Your task to perform on an android device: delete browsing data in the chrome app Image 0: 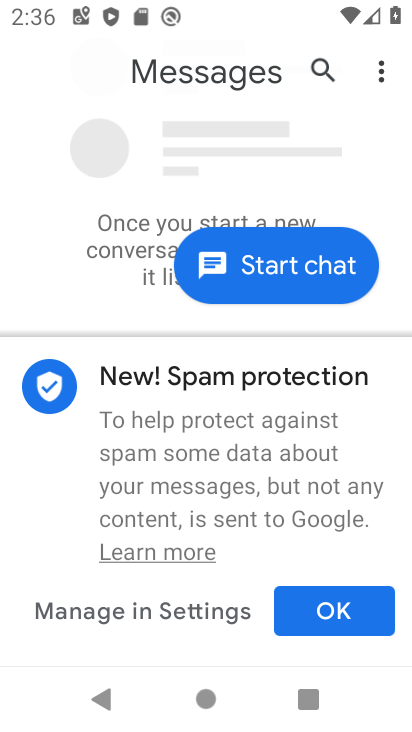
Step 0: press home button
Your task to perform on an android device: delete browsing data in the chrome app Image 1: 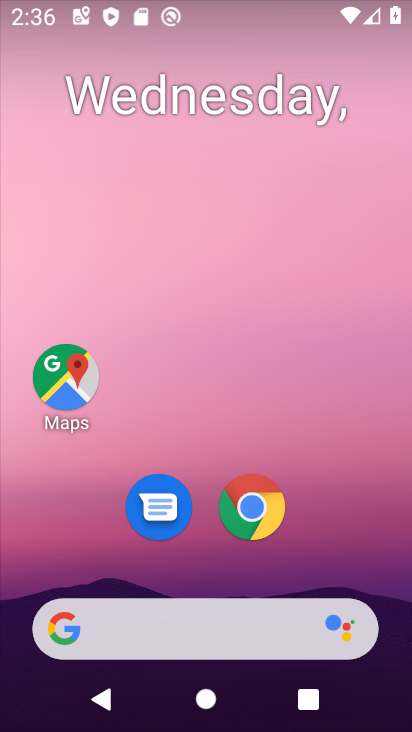
Step 1: click (255, 507)
Your task to perform on an android device: delete browsing data in the chrome app Image 2: 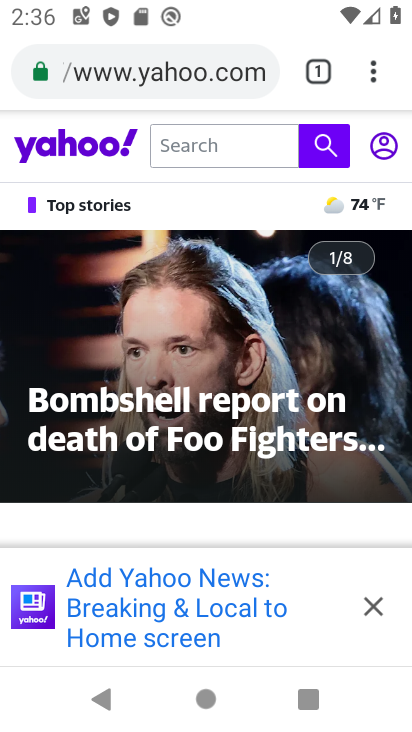
Step 2: click (367, 71)
Your task to perform on an android device: delete browsing data in the chrome app Image 3: 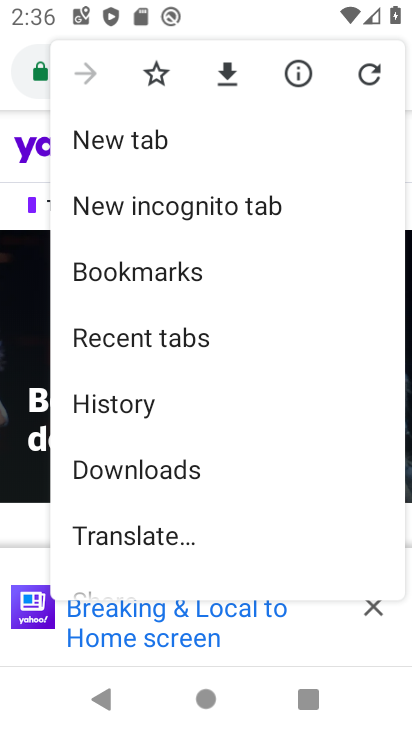
Step 3: drag from (264, 472) to (377, 171)
Your task to perform on an android device: delete browsing data in the chrome app Image 4: 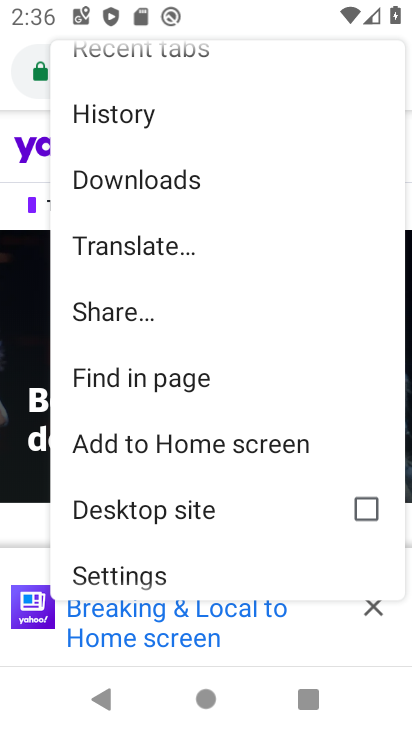
Step 4: click (131, 563)
Your task to perform on an android device: delete browsing data in the chrome app Image 5: 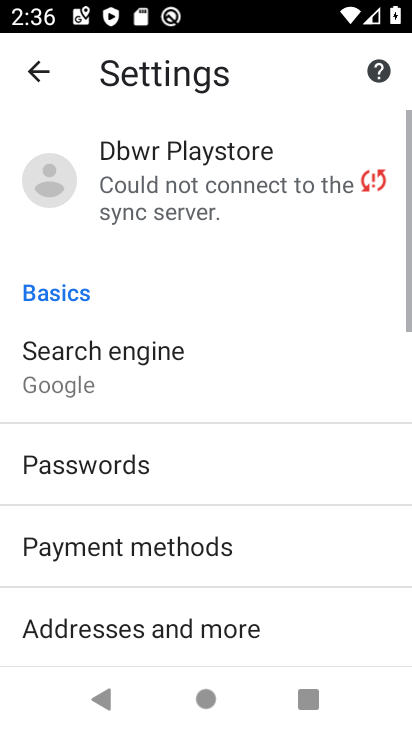
Step 5: drag from (211, 521) to (329, 149)
Your task to perform on an android device: delete browsing data in the chrome app Image 6: 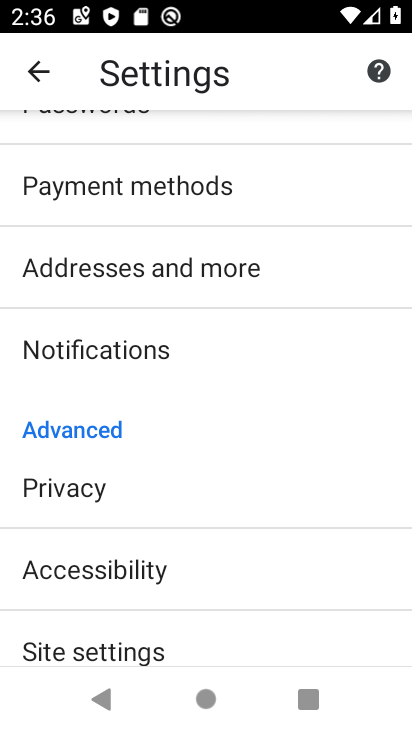
Step 6: click (168, 640)
Your task to perform on an android device: delete browsing data in the chrome app Image 7: 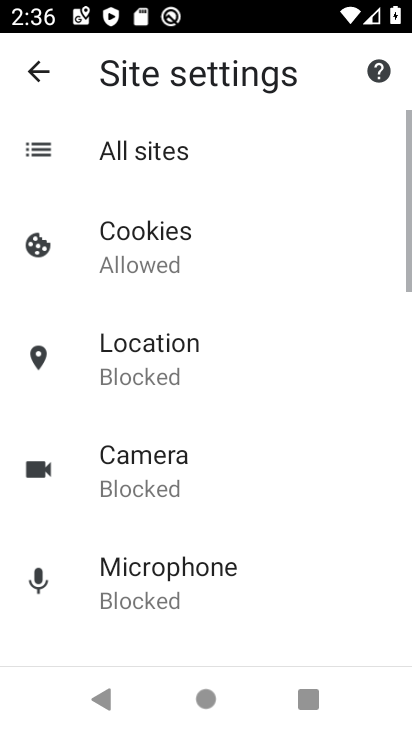
Step 7: drag from (205, 546) to (344, 86)
Your task to perform on an android device: delete browsing data in the chrome app Image 8: 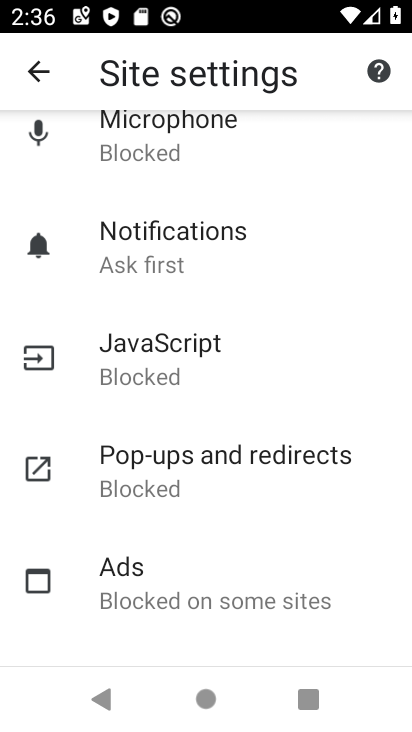
Step 8: drag from (205, 505) to (300, 110)
Your task to perform on an android device: delete browsing data in the chrome app Image 9: 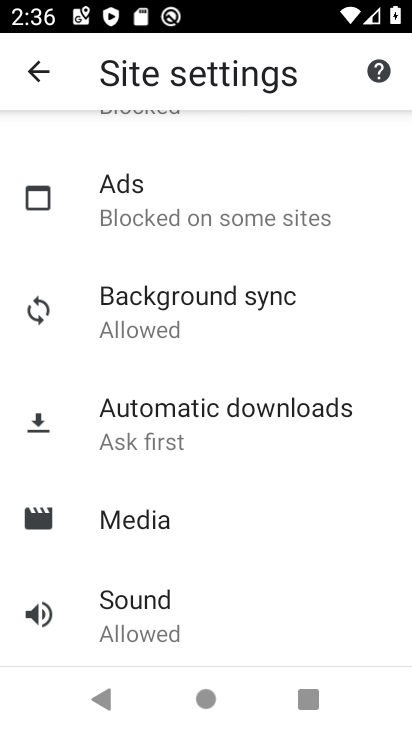
Step 9: drag from (231, 515) to (338, 98)
Your task to perform on an android device: delete browsing data in the chrome app Image 10: 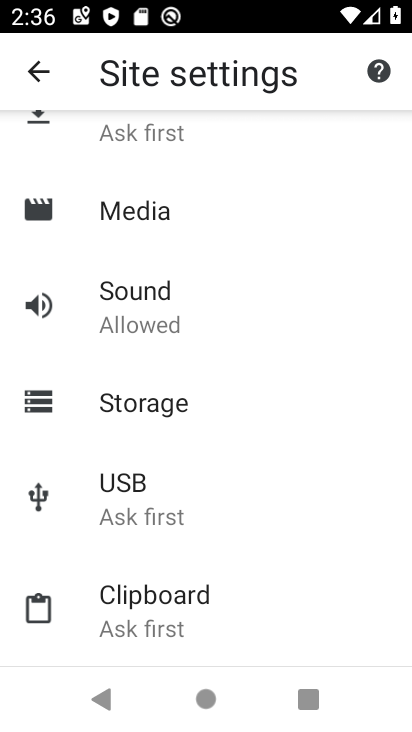
Step 10: drag from (260, 508) to (343, 116)
Your task to perform on an android device: delete browsing data in the chrome app Image 11: 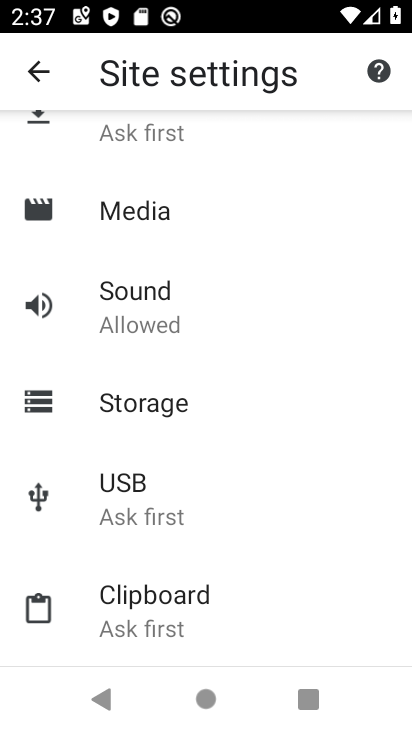
Step 11: press back button
Your task to perform on an android device: delete browsing data in the chrome app Image 12: 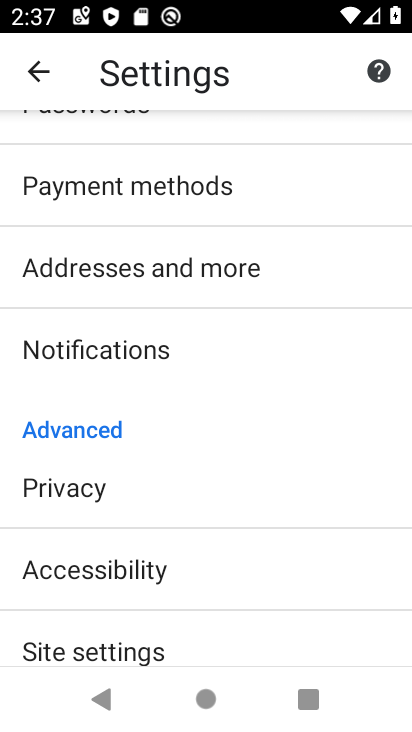
Step 12: drag from (190, 523) to (196, 235)
Your task to perform on an android device: delete browsing data in the chrome app Image 13: 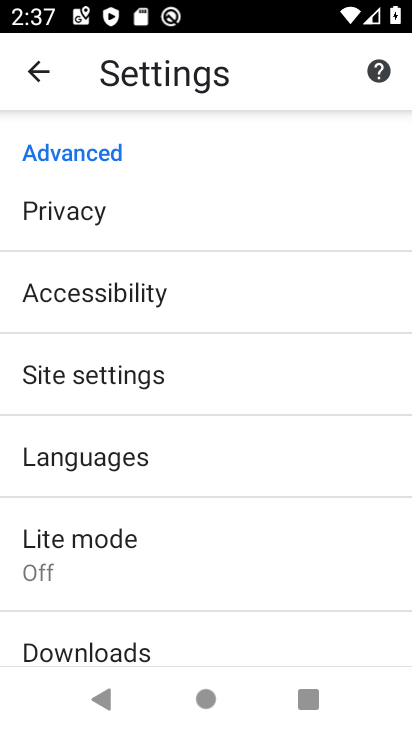
Step 13: drag from (151, 565) to (208, 289)
Your task to perform on an android device: delete browsing data in the chrome app Image 14: 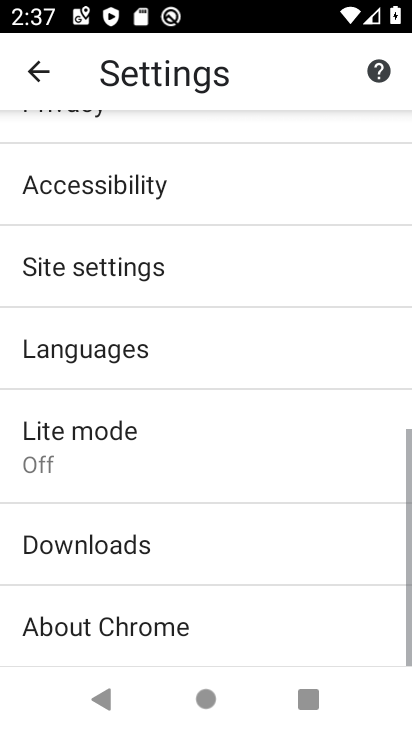
Step 14: drag from (212, 570) to (163, 407)
Your task to perform on an android device: delete browsing data in the chrome app Image 15: 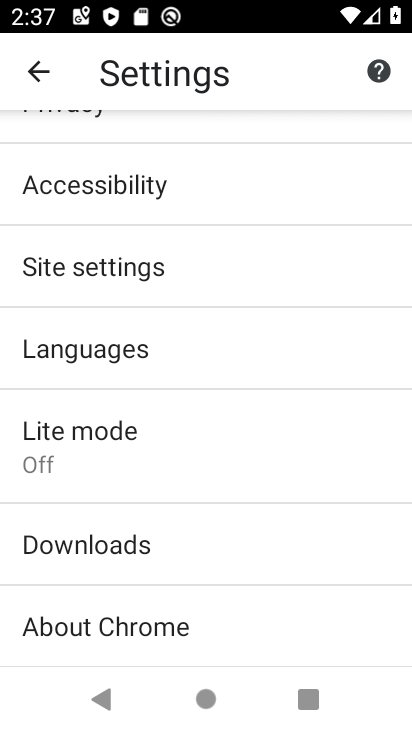
Step 15: click (198, 170)
Your task to perform on an android device: delete browsing data in the chrome app Image 16: 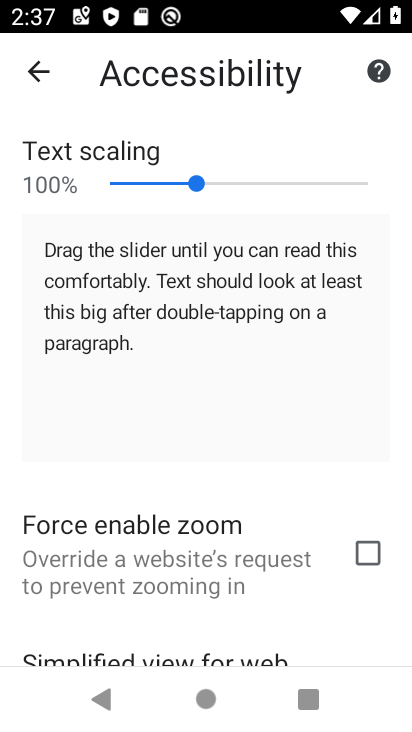
Step 16: drag from (289, 539) to (271, 281)
Your task to perform on an android device: delete browsing data in the chrome app Image 17: 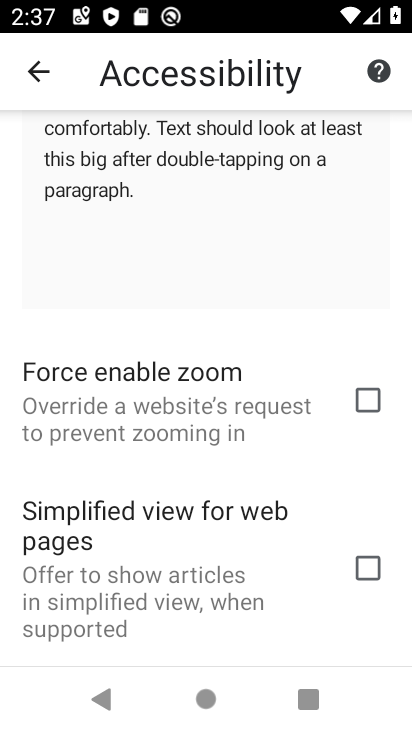
Step 17: press back button
Your task to perform on an android device: delete browsing data in the chrome app Image 18: 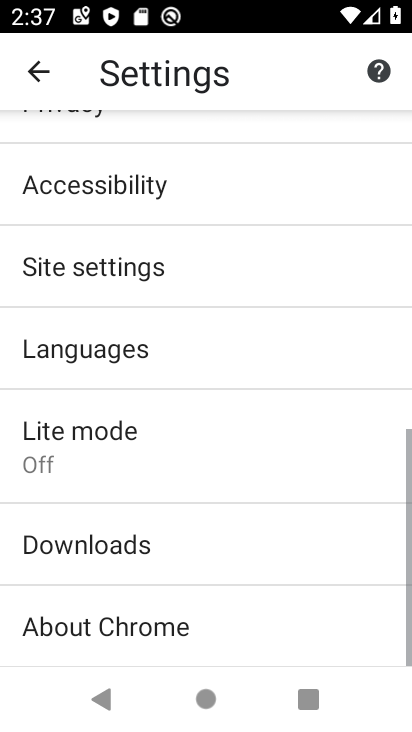
Step 18: press back button
Your task to perform on an android device: delete browsing data in the chrome app Image 19: 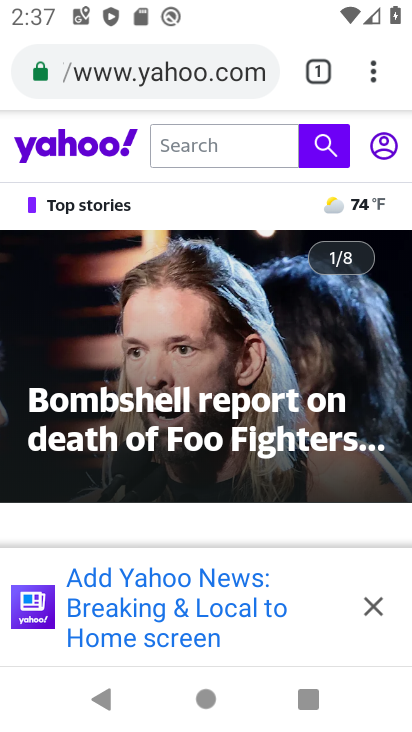
Step 19: click (331, 62)
Your task to perform on an android device: delete browsing data in the chrome app Image 20: 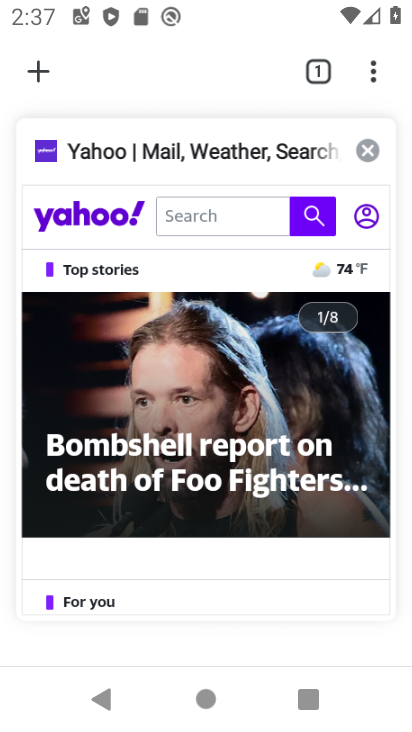
Step 20: click (371, 66)
Your task to perform on an android device: delete browsing data in the chrome app Image 21: 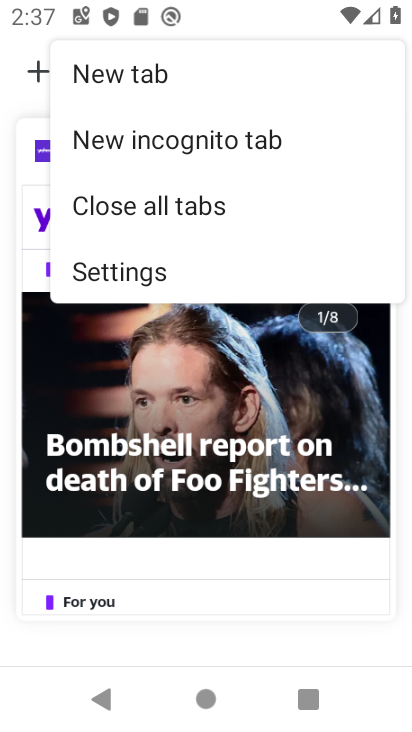
Step 21: click (120, 266)
Your task to perform on an android device: delete browsing data in the chrome app Image 22: 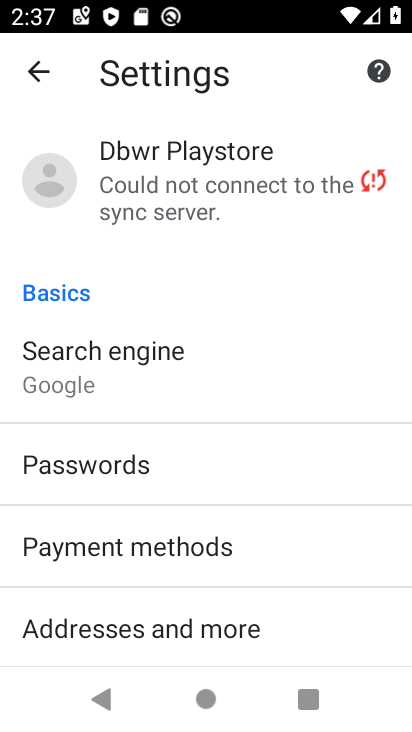
Step 22: drag from (182, 493) to (194, 137)
Your task to perform on an android device: delete browsing data in the chrome app Image 23: 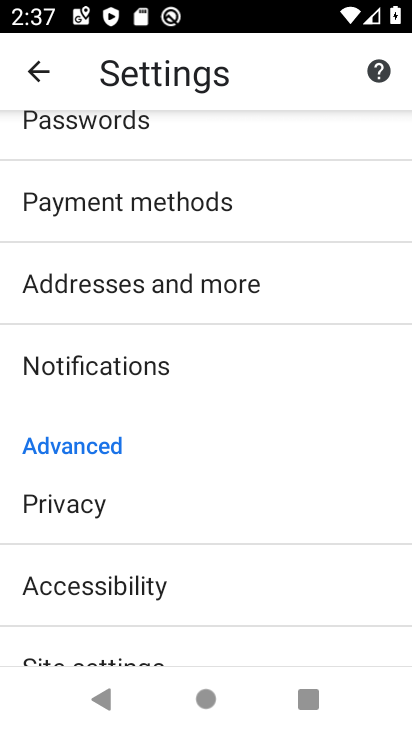
Step 23: click (176, 597)
Your task to perform on an android device: delete browsing data in the chrome app Image 24: 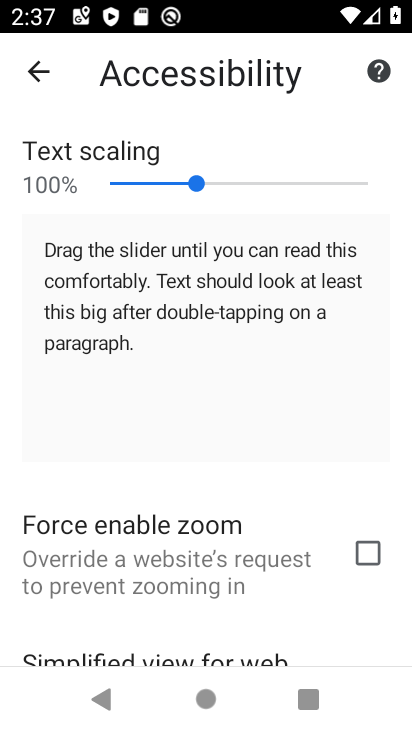
Step 24: press back button
Your task to perform on an android device: delete browsing data in the chrome app Image 25: 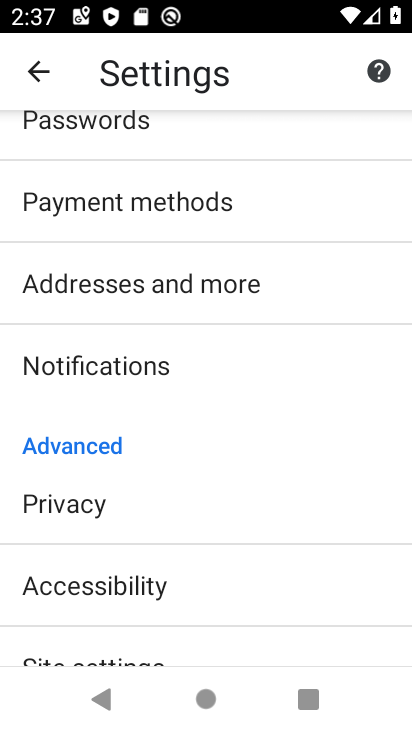
Step 25: click (127, 493)
Your task to perform on an android device: delete browsing data in the chrome app Image 26: 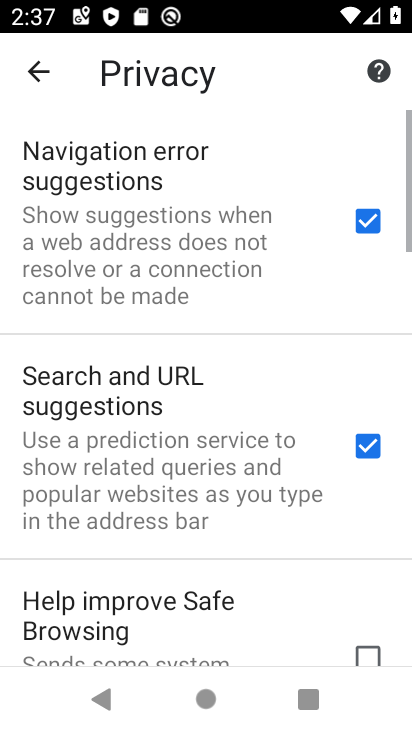
Step 26: drag from (220, 534) to (193, 147)
Your task to perform on an android device: delete browsing data in the chrome app Image 27: 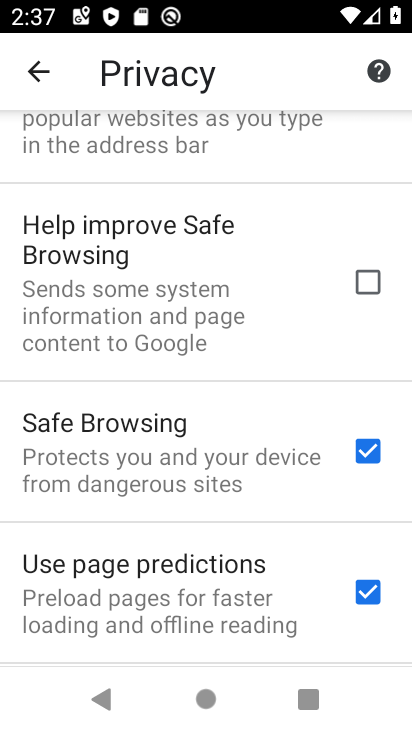
Step 27: drag from (211, 492) to (179, 197)
Your task to perform on an android device: delete browsing data in the chrome app Image 28: 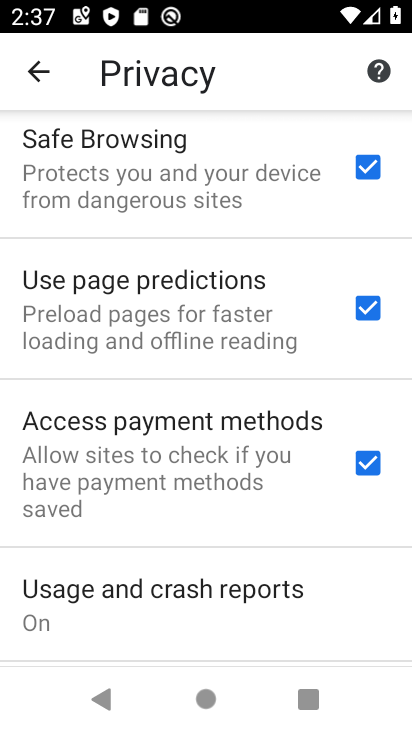
Step 28: drag from (218, 513) to (211, 163)
Your task to perform on an android device: delete browsing data in the chrome app Image 29: 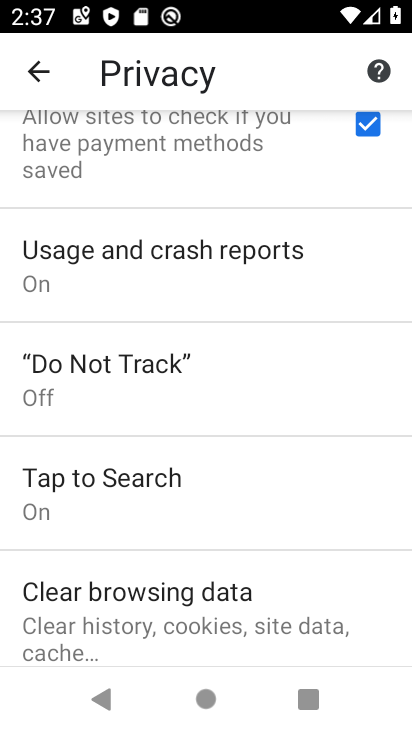
Step 29: drag from (224, 535) to (235, 186)
Your task to perform on an android device: delete browsing data in the chrome app Image 30: 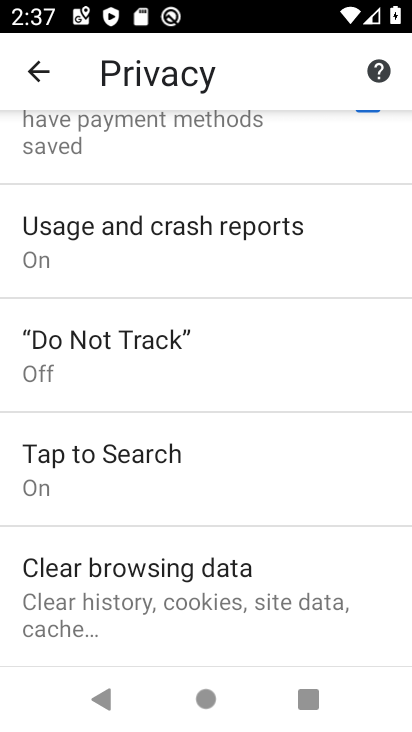
Step 30: click (229, 585)
Your task to perform on an android device: delete browsing data in the chrome app Image 31: 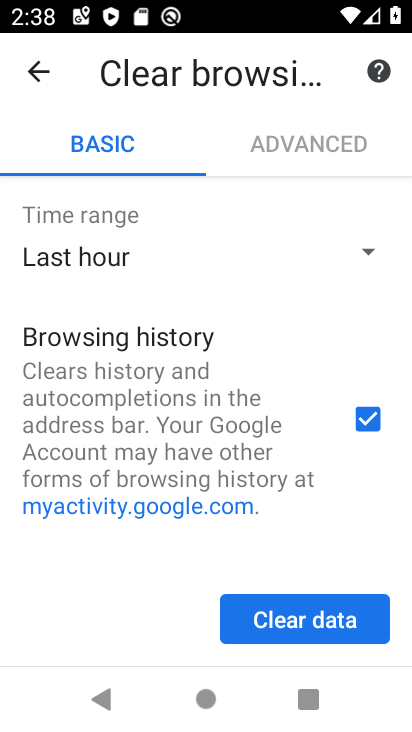
Step 31: click (287, 627)
Your task to perform on an android device: delete browsing data in the chrome app Image 32: 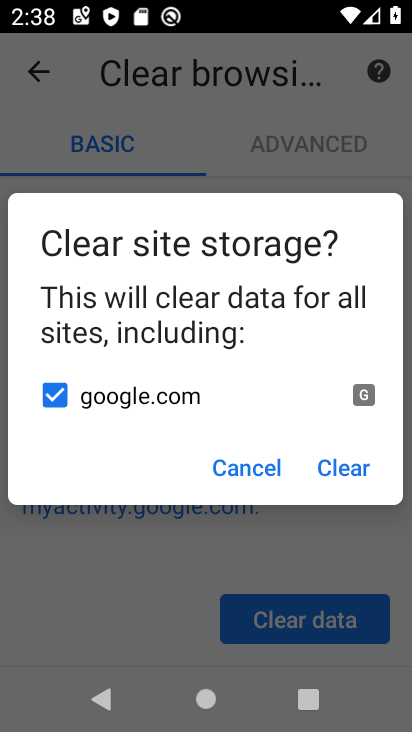
Step 32: click (343, 471)
Your task to perform on an android device: delete browsing data in the chrome app Image 33: 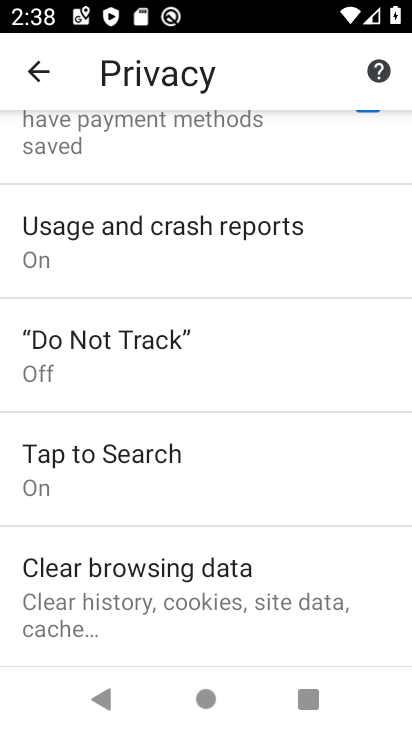
Step 33: task complete